Your task to perform on an android device: Set the phone to "Do not disturb". Image 0: 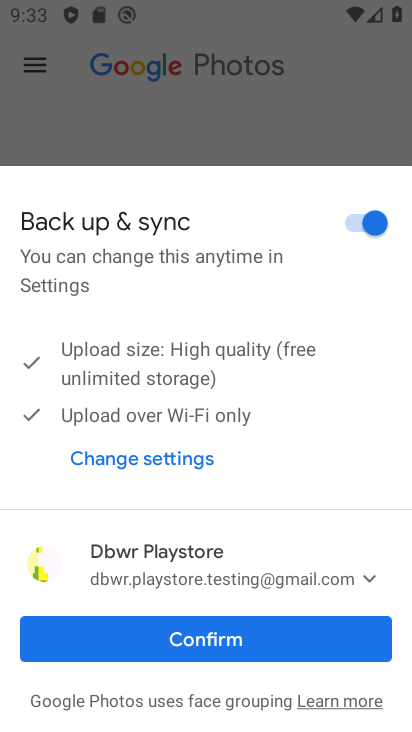
Step 0: press home button
Your task to perform on an android device: Set the phone to "Do not disturb". Image 1: 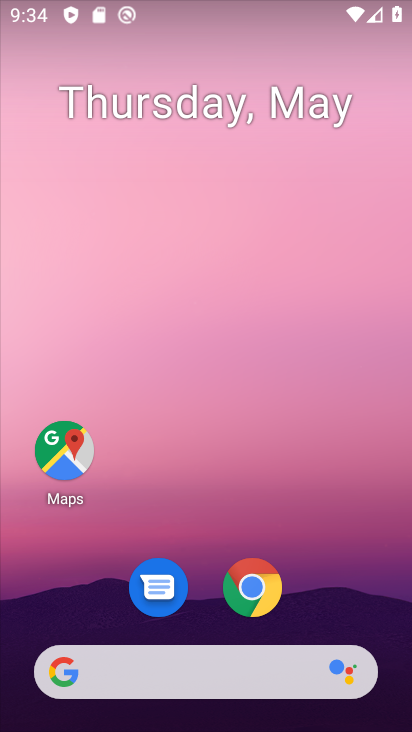
Step 1: drag from (321, 589) to (333, 58)
Your task to perform on an android device: Set the phone to "Do not disturb". Image 2: 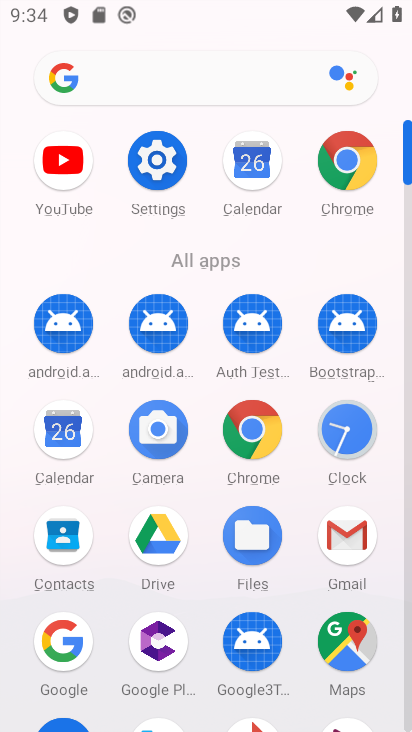
Step 2: click (170, 149)
Your task to perform on an android device: Set the phone to "Do not disturb". Image 3: 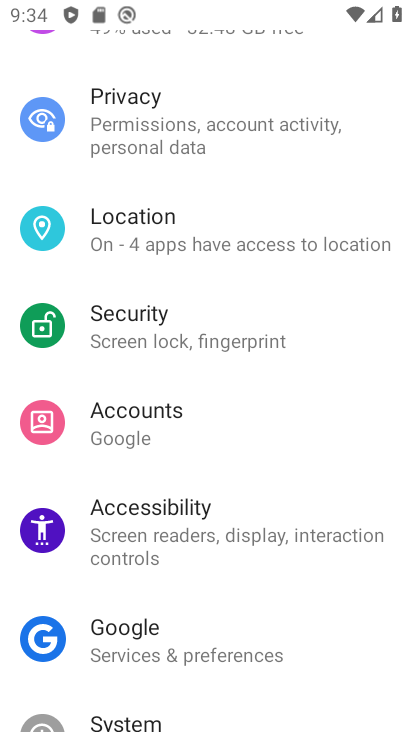
Step 3: task complete